Your task to perform on an android device: turn on airplane mode Image 0: 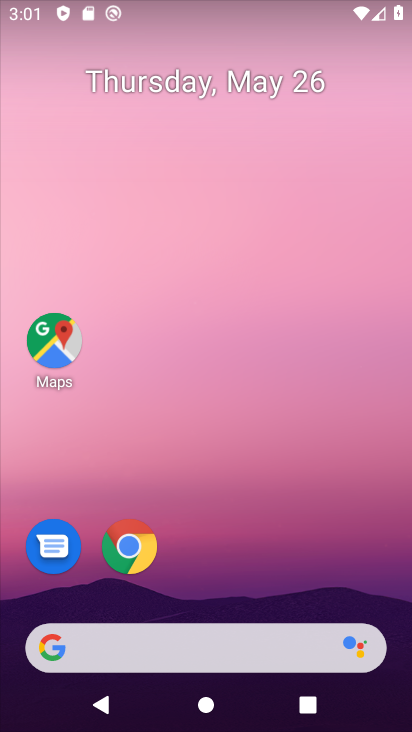
Step 0: drag from (366, 13) to (339, 463)
Your task to perform on an android device: turn on airplane mode Image 1: 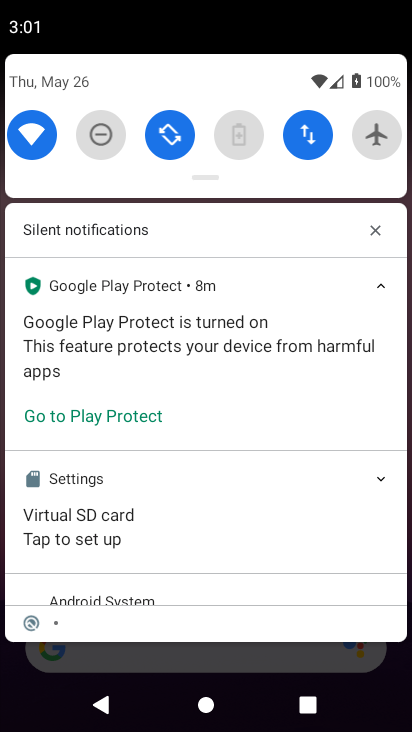
Step 1: click (368, 131)
Your task to perform on an android device: turn on airplane mode Image 2: 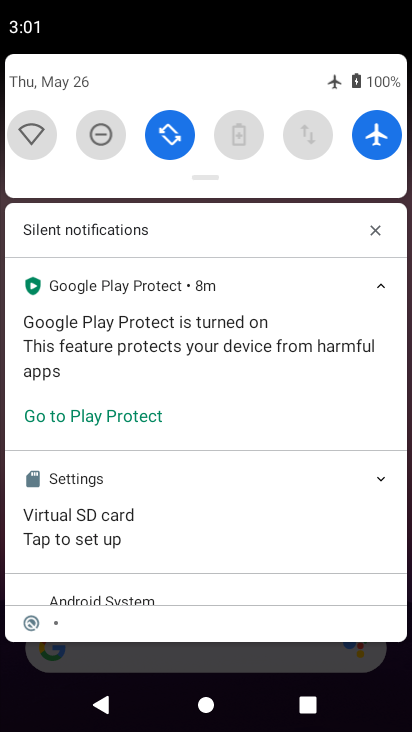
Step 2: task complete